Your task to perform on an android device: What's the weather going to be tomorrow? Image 0: 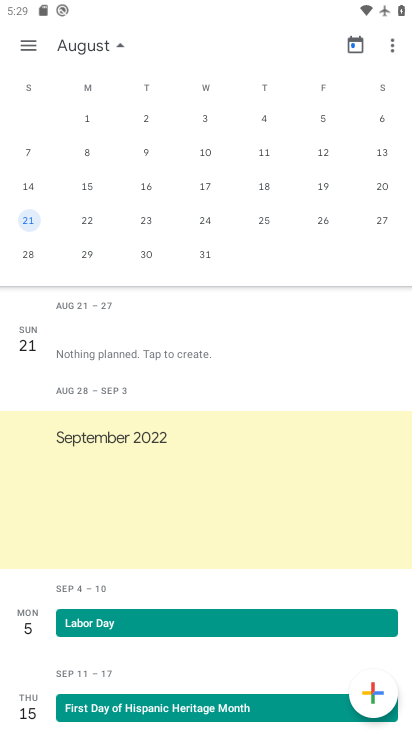
Step 0: press home button
Your task to perform on an android device: What's the weather going to be tomorrow? Image 1: 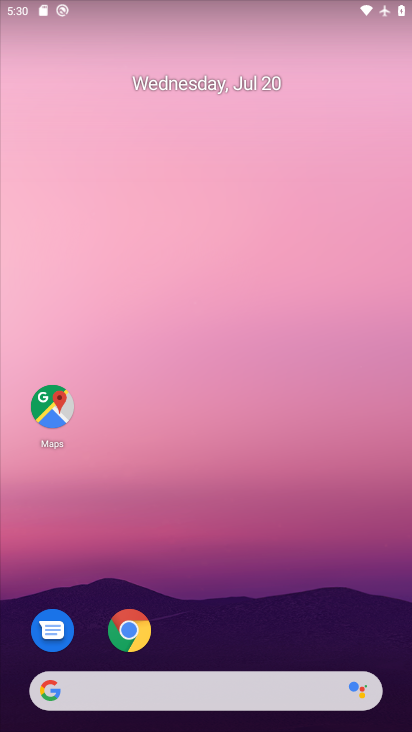
Step 1: press home button
Your task to perform on an android device: What's the weather going to be tomorrow? Image 2: 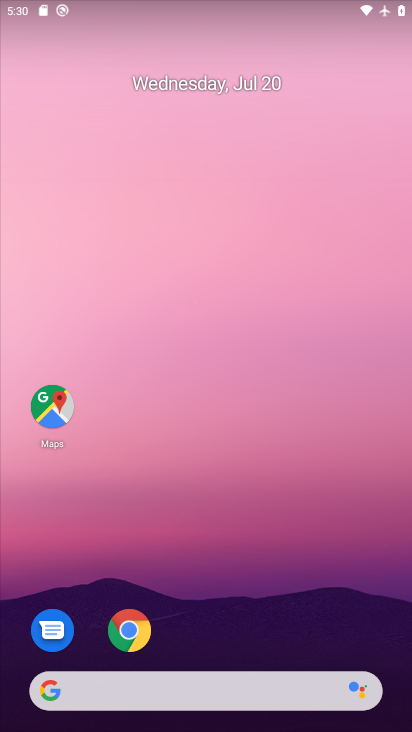
Step 2: drag from (267, 598) to (235, 152)
Your task to perform on an android device: What's the weather going to be tomorrow? Image 3: 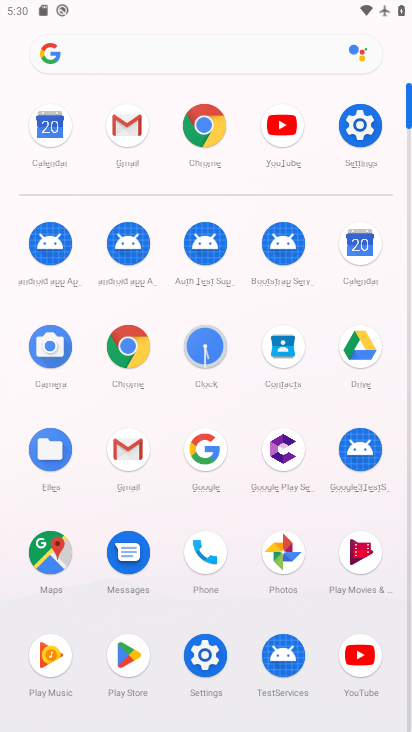
Step 3: click (200, 454)
Your task to perform on an android device: What's the weather going to be tomorrow? Image 4: 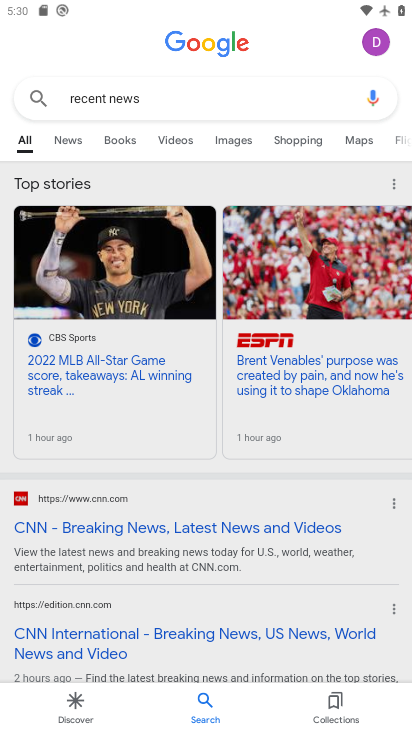
Step 4: click (252, 71)
Your task to perform on an android device: What's the weather going to be tomorrow? Image 5: 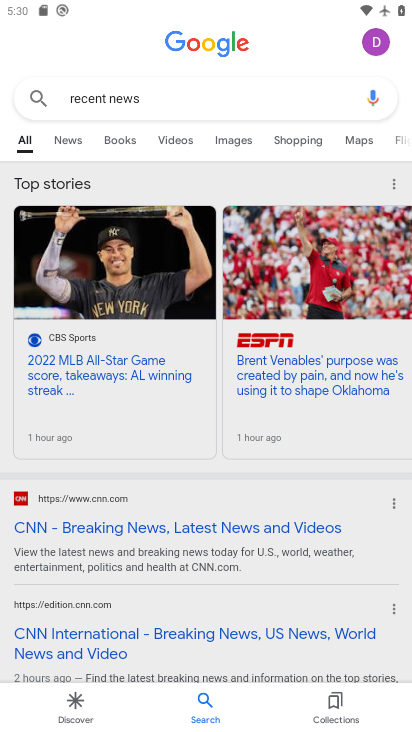
Step 5: click (252, 95)
Your task to perform on an android device: What's the weather going to be tomorrow? Image 6: 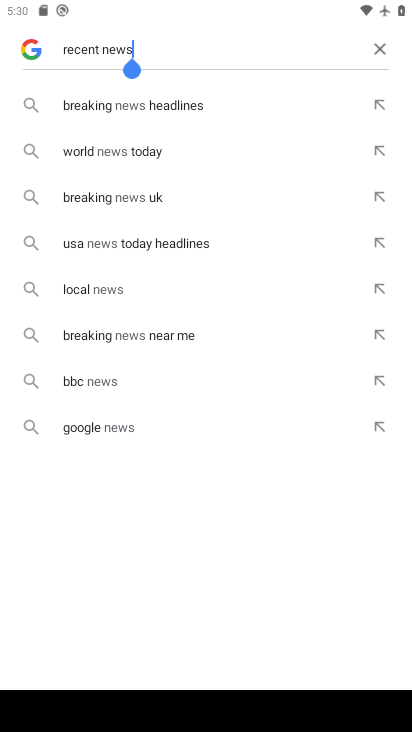
Step 6: click (374, 49)
Your task to perform on an android device: What's the weather going to be tomorrow? Image 7: 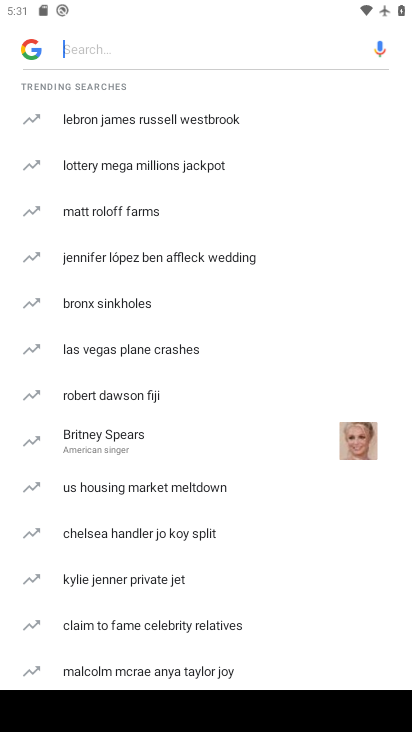
Step 7: type "weather going to be tomorrow?"
Your task to perform on an android device: What's the weather going to be tomorrow? Image 8: 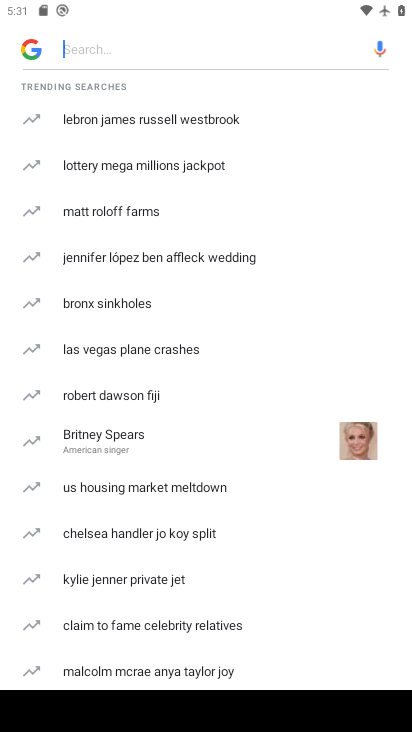
Step 8: click (97, 49)
Your task to perform on an android device: What's the weather going to be tomorrow? Image 9: 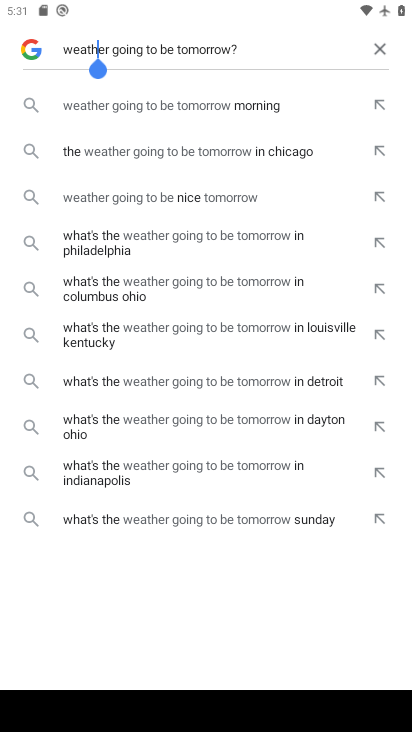
Step 9: press enter
Your task to perform on an android device: What's the weather going to be tomorrow? Image 10: 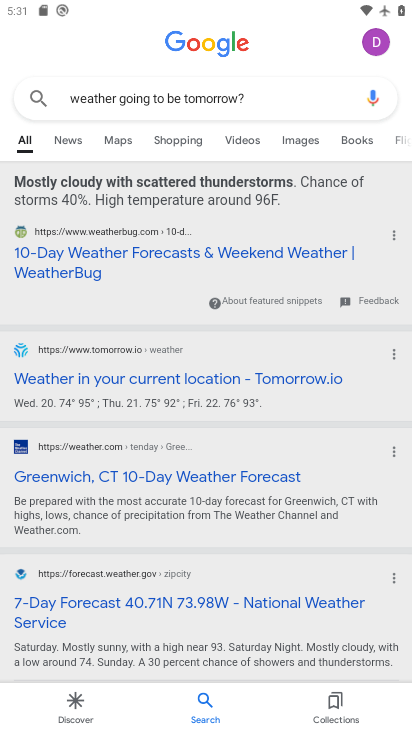
Step 10: task complete